Your task to perform on an android device: Add razer naga to the cart on amazon, then select checkout. Image 0: 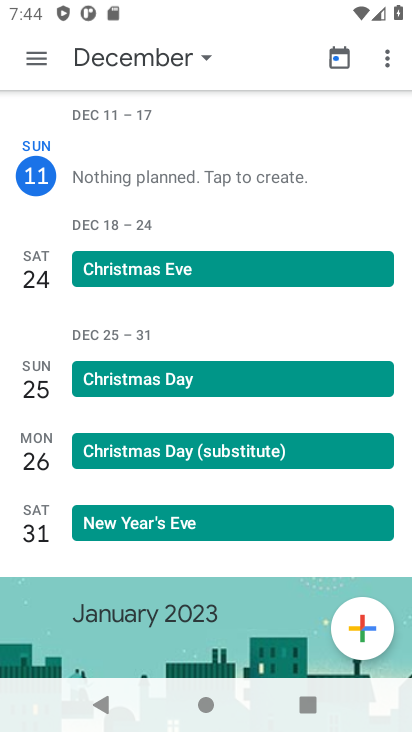
Step 0: press home button
Your task to perform on an android device: Add razer naga to the cart on amazon, then select checkout. Image 1: 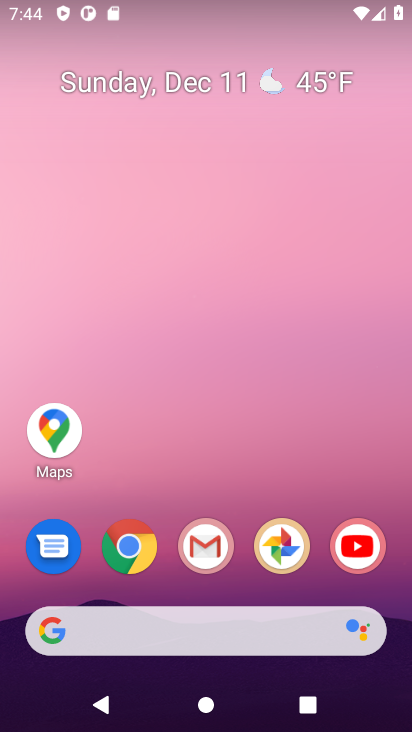
Step 1: click (136, 552)
Your task to perform on an android device: Add razer naga to the cart on amazon, then select checkout. Image 2: 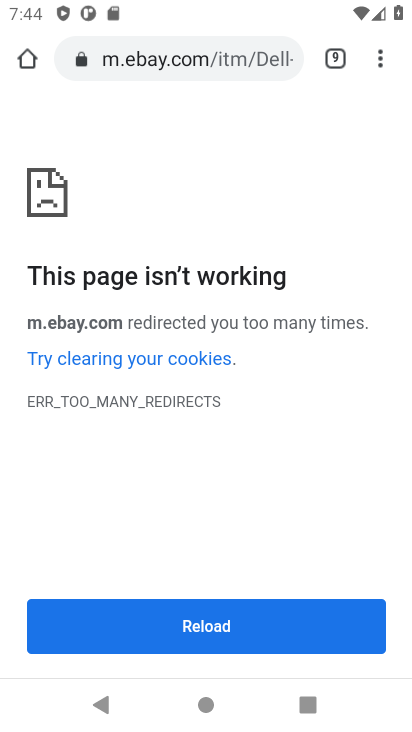
Step 2: click (188, 57)
Your task to perform on an android device: Add razer naga to the cart on amazon, then select checkout. Image 3: 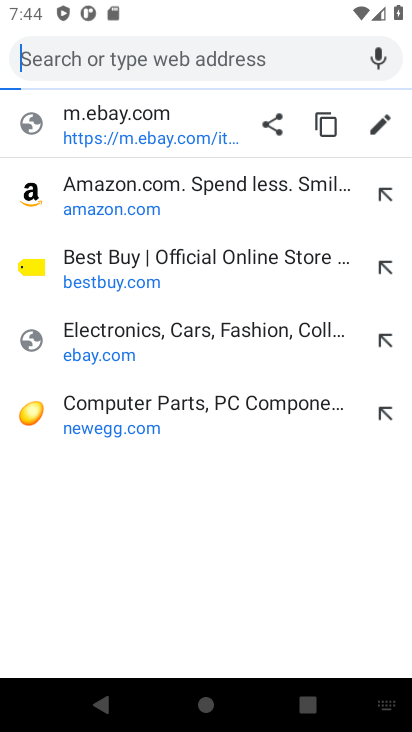
Step 3: click (87, 194)
Your task to perform on an android device: Add razer naga to the cart on amazon, then select checkout. Image 4: 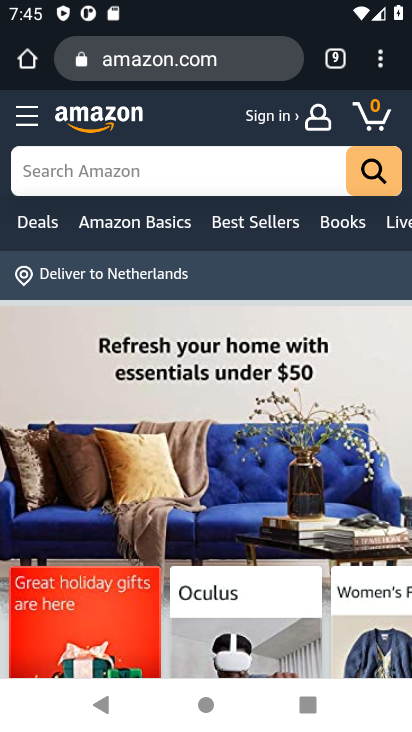
Step 4: click (93, 178)
Your task to perform on an android device: Add razer naga to the cart on amazon, then select checkout. Image 5: 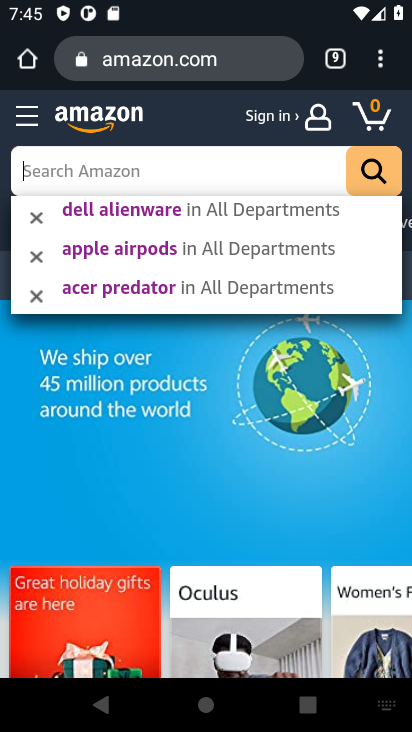
Step 5: type "razer naga"
Your task to perform on an android device: Add razer naga to the cart on amazon, then select checkout. Image 6: 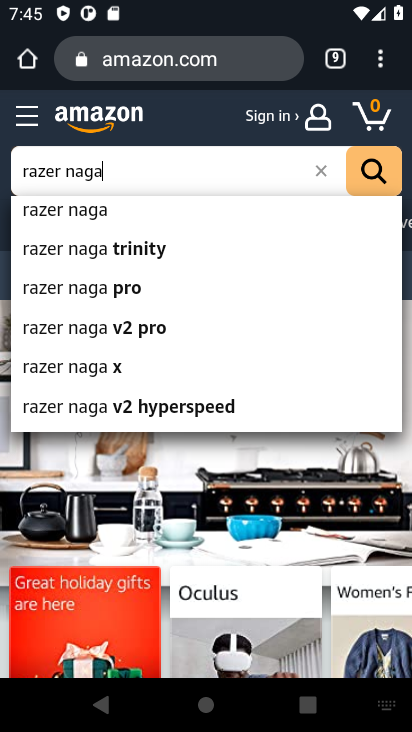
Step 6: click (69, 214)
Your task to perform on an android device: Add razer naga to the cart on amazon, then select checkout. Image 7: 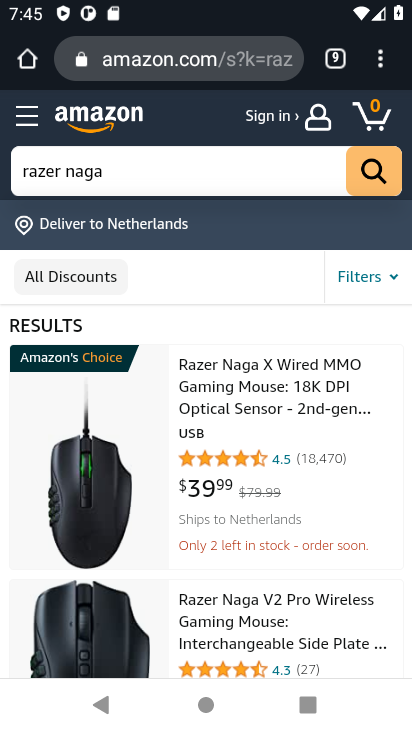
Step 7: click (259, 392)
Your task to perform on an android device: Add razer naga to the cart on amazon, then select checkout. Image 8: 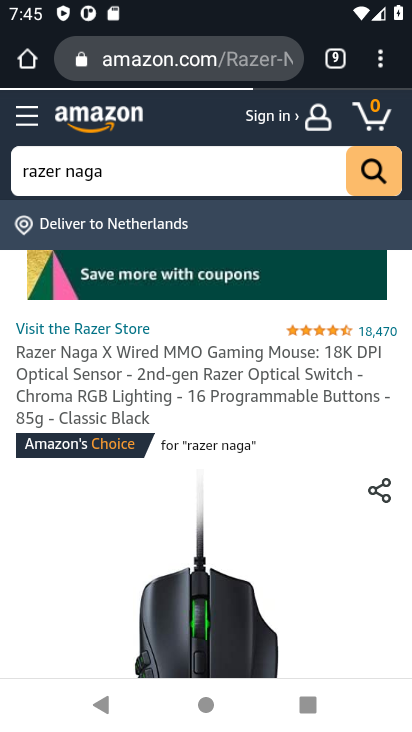
Step 8: drag from (243, 581) to (229, 165)
Your task to perform on an android device: Add razer naga to the cart on amazon, then select checkout. Image 9: 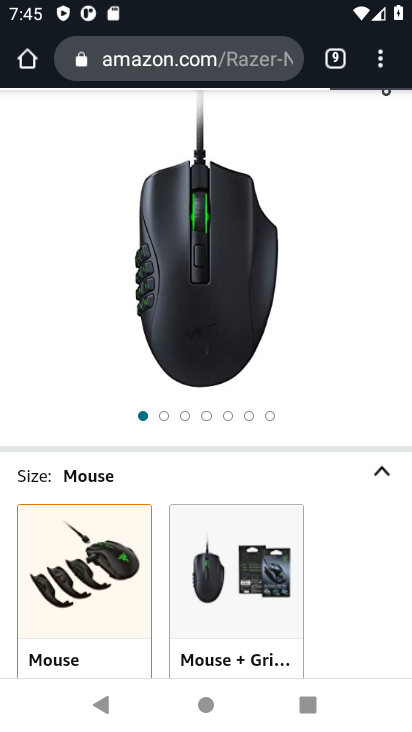
Step 9: drag from (202, 482) to (161, 163)
Your task to perform on an android device: Add razer naga to the cart on amazon, then select checkout. Image 10: 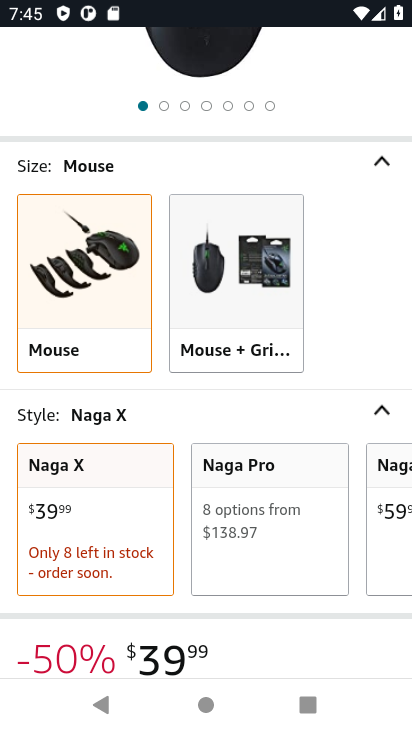
Step 10: drag from (155, 497) to (132, 122)
Your task to perform on an android device: Add razer naga to the cart on amazon, then select checkout. Image 11: 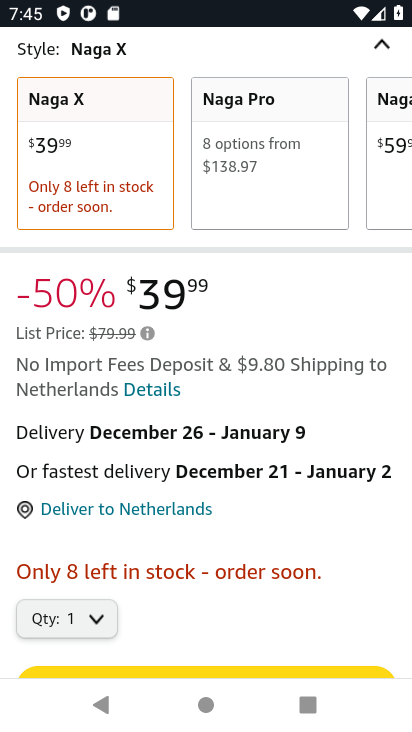
Step 11: drag from (183, 433) to (186, 150)
Your task to perform on an android device: Add razer naga to the cart on amazon, then select checkout. Image 12: 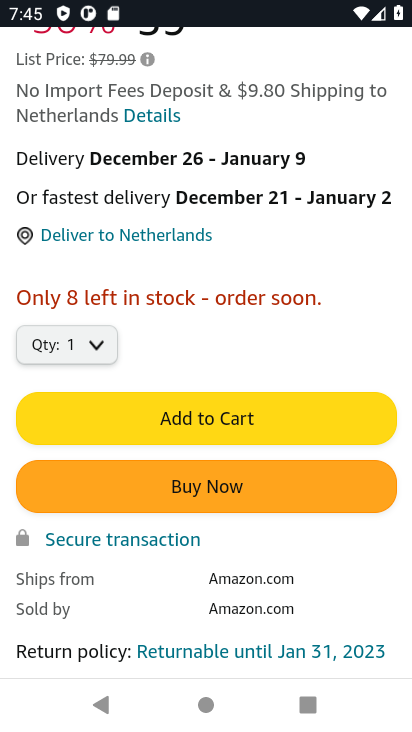
Step 12: click (194, 432)
Your task to perform on an android device: Add razer naga to the cart on amazon, then select checkout. Image 13: 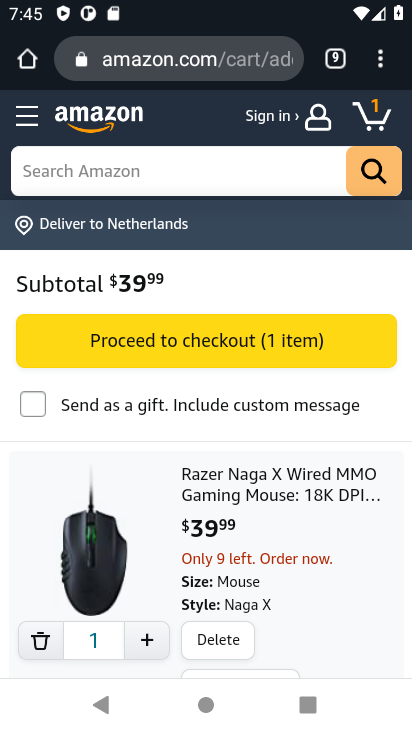
Step 13: click (186, 339)
Your task to perform on an android device: Add razer naga to the cart on amazon, then select checkout. Image 14: 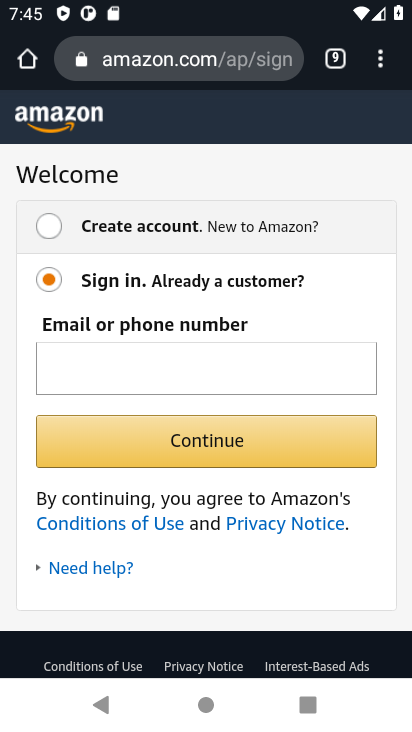
Step 14: task complete